Your task to perform on an android device: read, delete, or share a saved page in the chrome app Image 0: 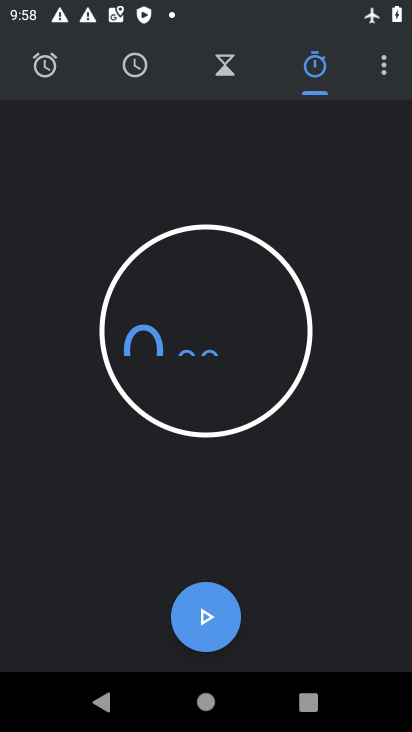
Step 0: press home button
Your task to perform on an android device: read, delete, or share a saved page in the chrome app Image 1: 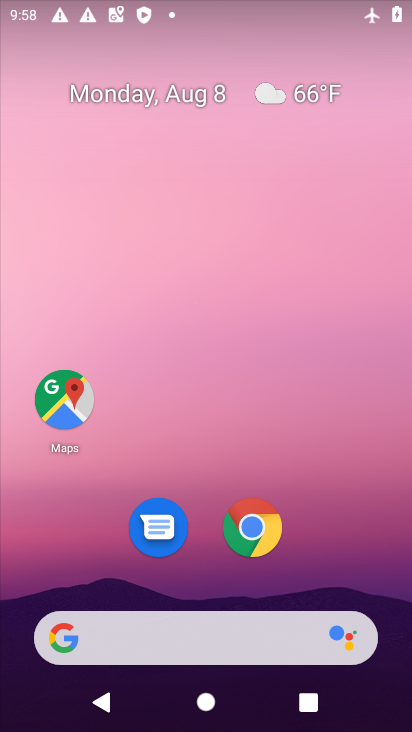
Step 1: click (253, 527)
Your task to perform on an android device: read, delete, or share a saved page in the chrome app Image 2: 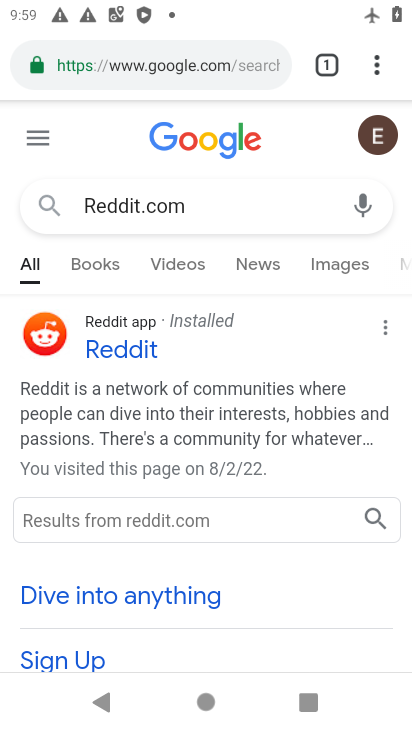
Step 2: click (376, 62)
Your task to perform on an android device: read, delete, or share a saved page in the chrome app Image 3: 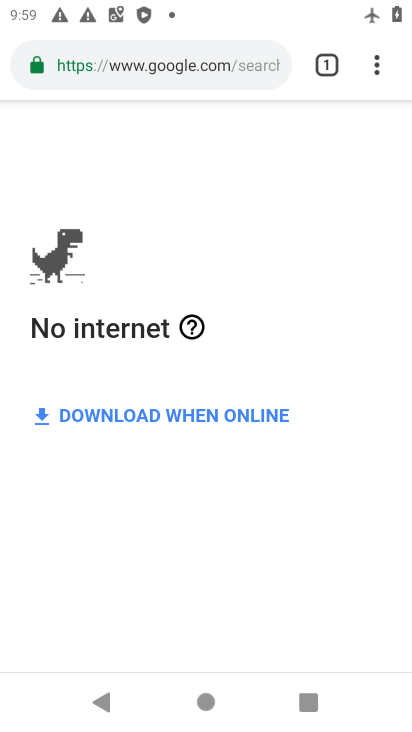
Step 3: click (376, 62)
Your task to perform on an android device: read, delete, or share a saved page in the chrome app Image 4: 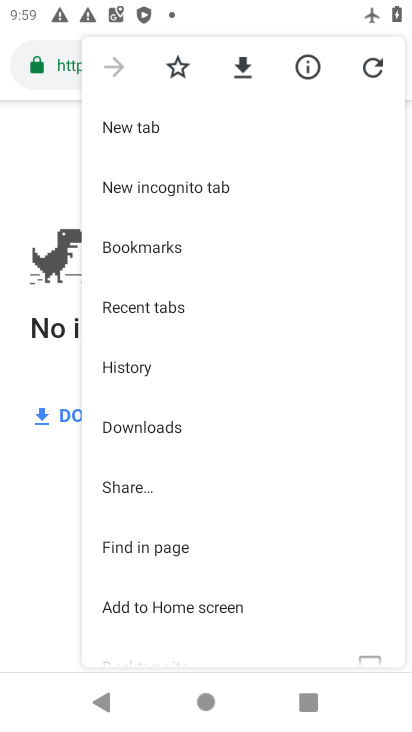
Step 4: click (130, 426)
Your task to perform on an android device: read, delete, or share a saved page in the chrome app Image 5: 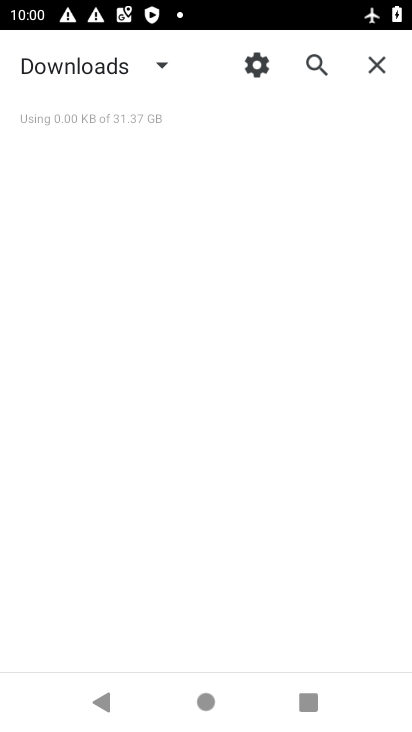
Step 5: task complete